Your task to perform on an android device: turn on the 12-hour format for clock Image 0: 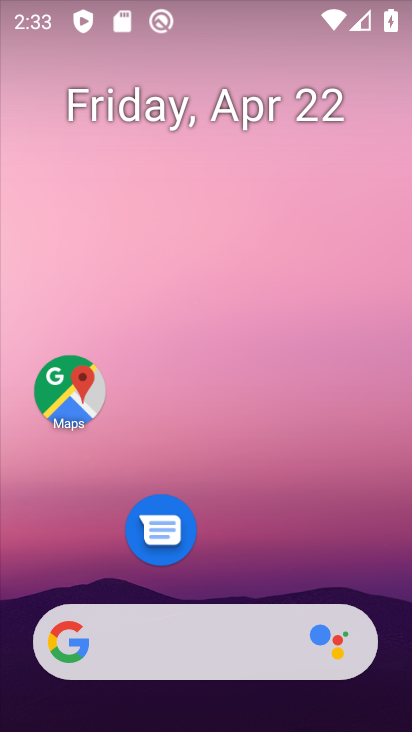
Step 0: drag from (257, 513) to (257, 27)
Your task to perform on an android device: turn on the 12-hour format for clock Image 1: 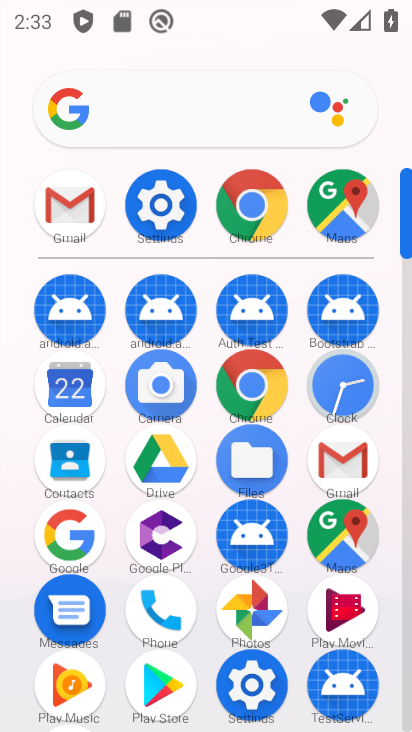
Step 1: click (343, 381)
Your task to perform on an android device: turn on the 12-hour format for clock Image 2: 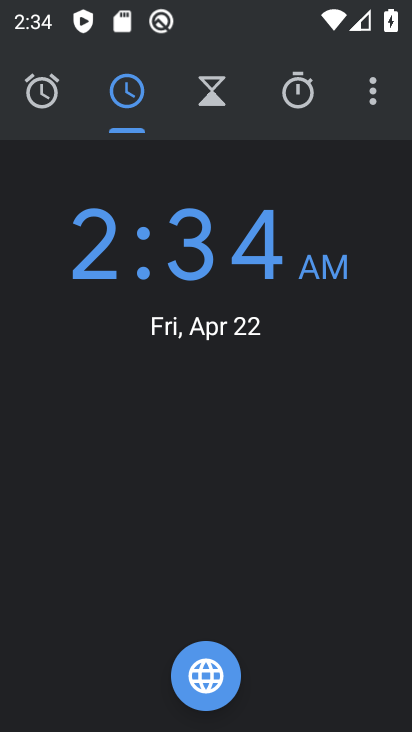
Step 2: click (370, 105)
Your task to perform on an android device: turn on the 12-hour format for clock Image 3: 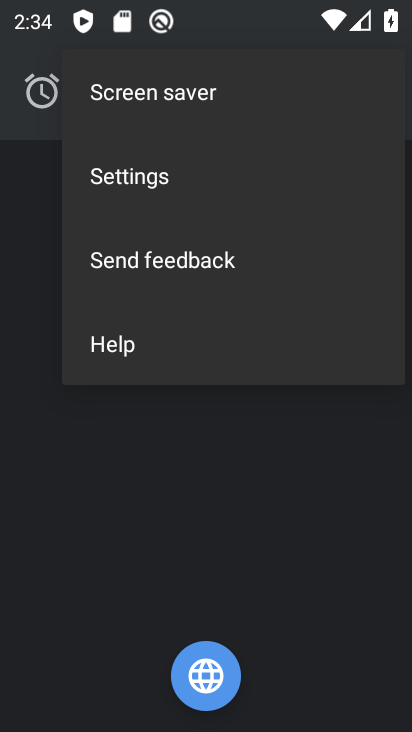
Step 3: click (126, 171)
Your task to perform on an android device: turn on the 12-hour format for clock Image 4: 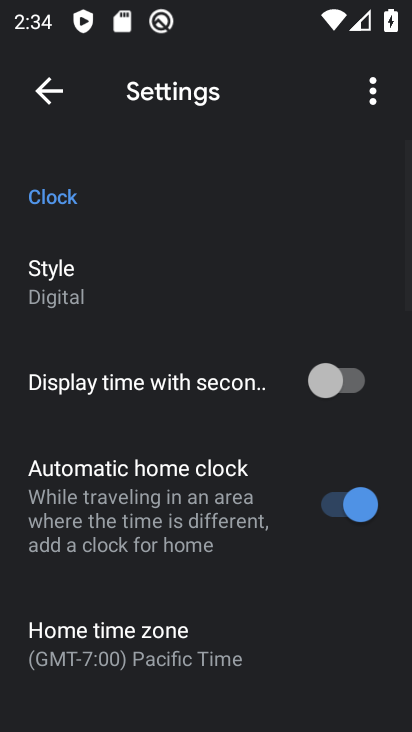
Step 4: drag from (192, 568) to (202, 266)
Your task to perform on an android device: turn on the 12-hour format for clock Image 5: 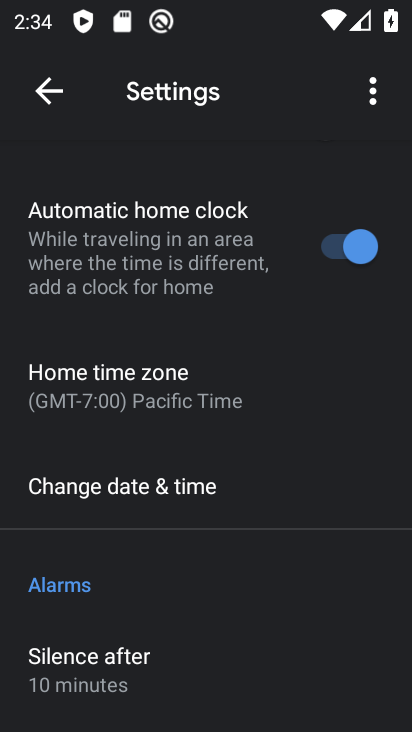
Step 5: click (147, 480)
Your task to perform on an android device: turn on the 12-hour format for clock Image 6: 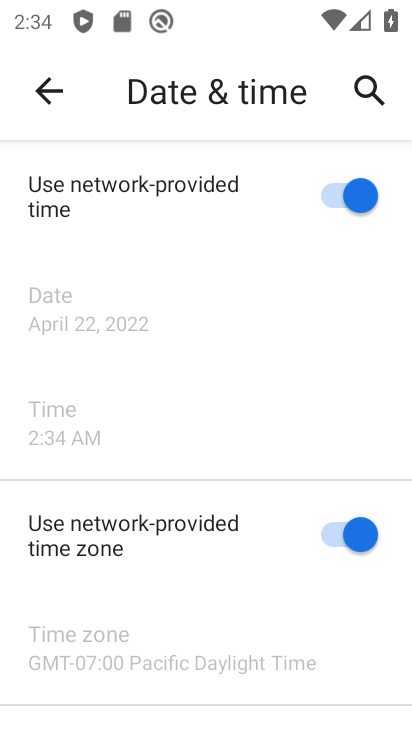
Step 6: task complete